Your task to perform on an android device: toggle wifi Image 0: 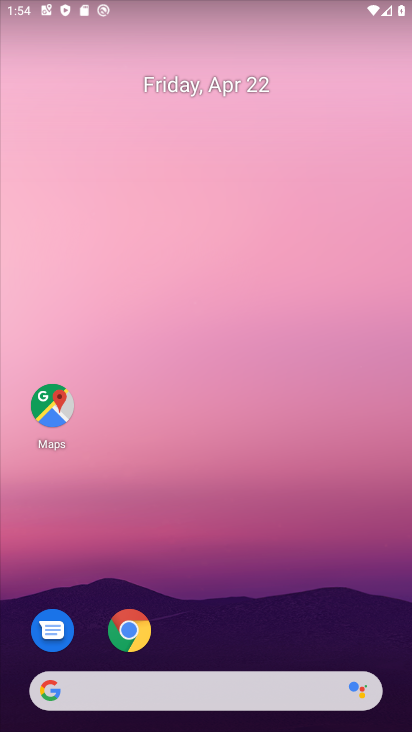
Step 0: drag from (355, 578) to (267, 118)
Your task to perform on an android device: toggle wifi Image 1: 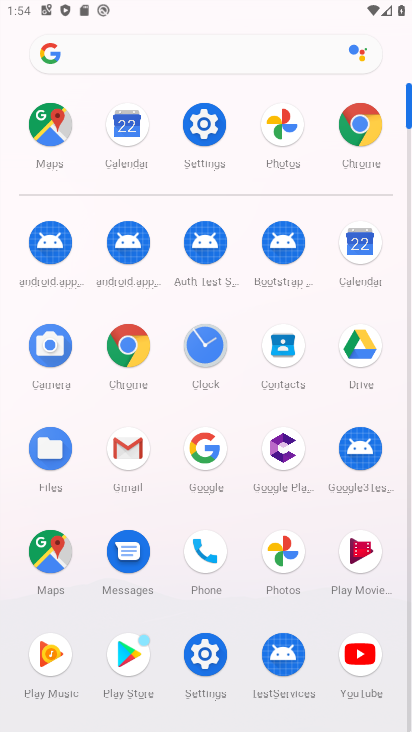
Step 1: click (199, 655)
Your task to perform on an android device: toggle wifi Image 2: 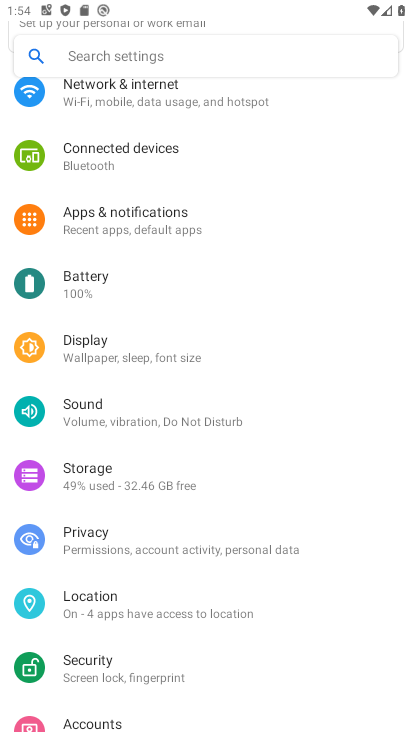
Step 2: click (173, 102)
Your task to perform on an android device: toggle wifi Image 3: 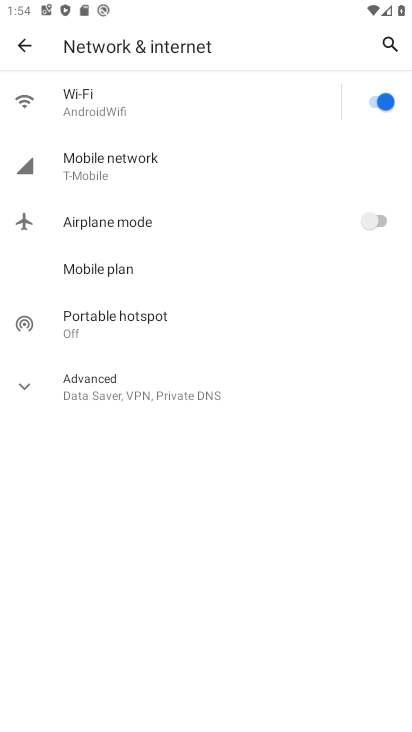
Step 3: click (370, 108)
Your task to perform on an android device: toggle wifi Image 4: 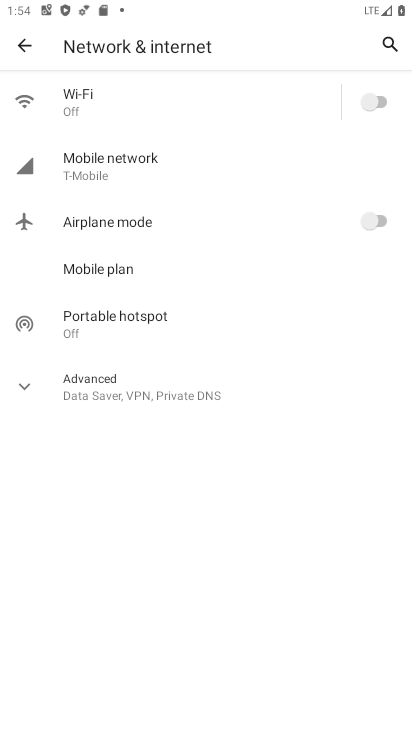
Step 4: task complete